Your task to perform on an android device: Open sound settings Image 0: 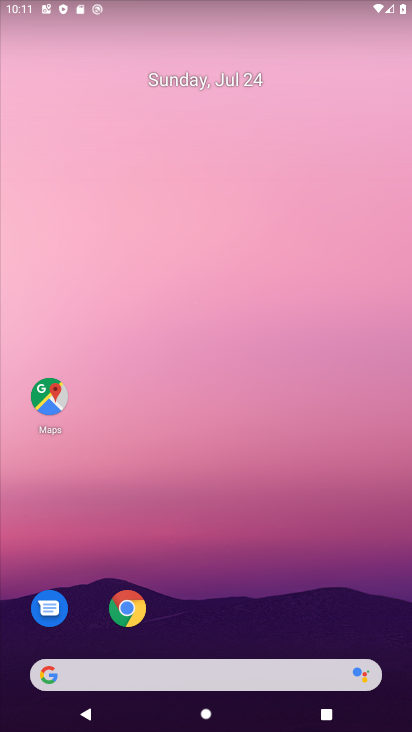
Step 0: drag from (227, 626) to (342, 21)
Your task to perform on an android device: Open sound settings Image 1: 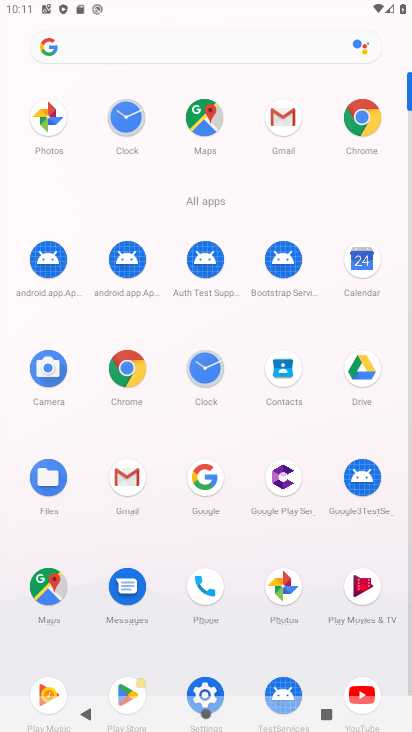
Step 1: click (205, 686)
Your task to perform on an android device: Open sound settings Image 2: 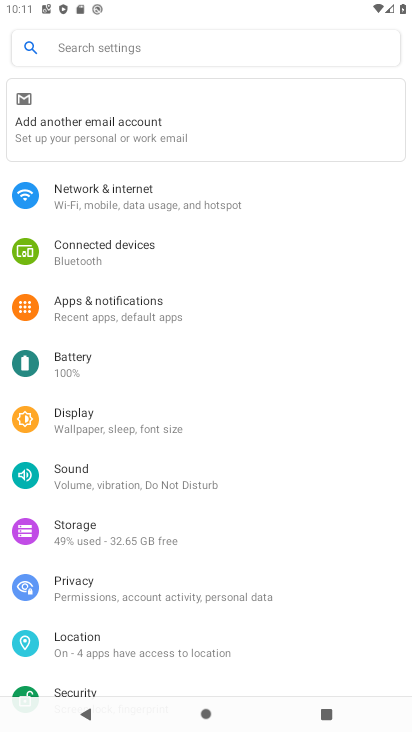
Step 2: click (102, 480)
Your task to perform on an android device: Open sound settings Image 3: 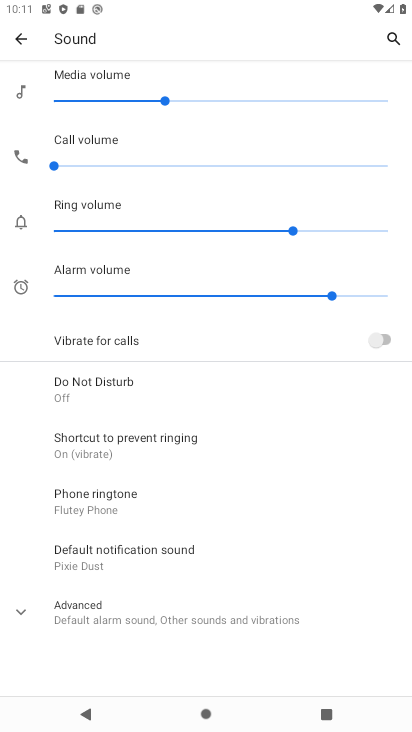
Step 3: task complete